Your task to perform on an android device: Find coffee shops on Maps Image 0: 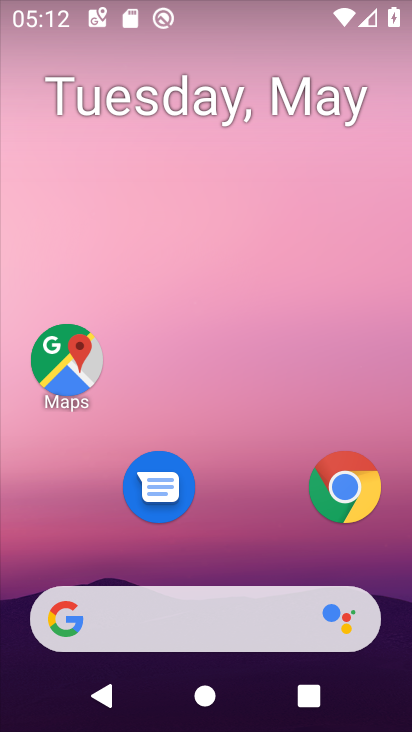
Step 0: click (77, 374)
Your task to perform on an android device: Find coffee shops on Maps Image 1: 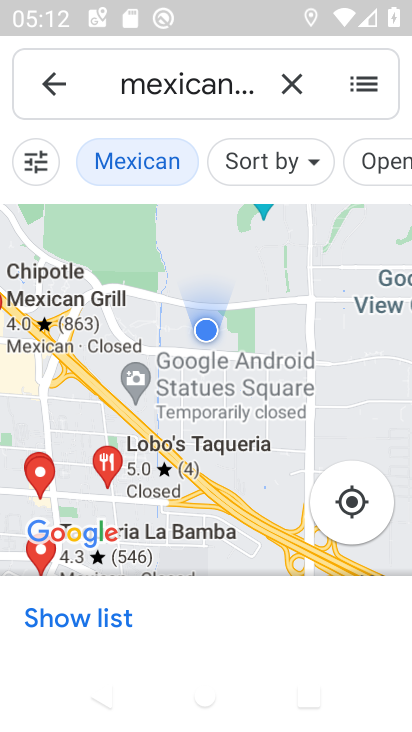
Step 1: click (275, 102)
Your task to perform on an android device: Find coffee shops on Maps Image 2: 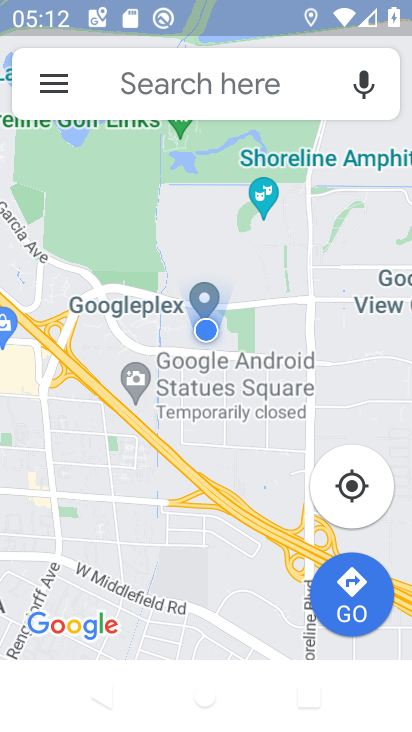
Step 2: click (264, 92)
Your task to perform on an android device: Find coffee shops on Maps Image 3: 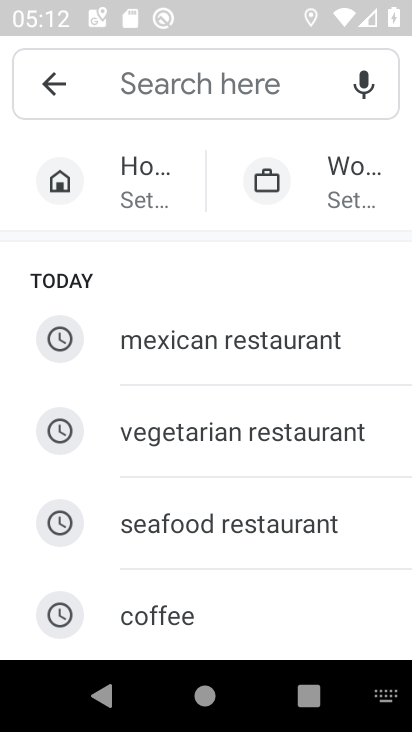
Step 3: click (209, 586)
Your task to perform on an android device: Find coffee shops on Maps Image 4: 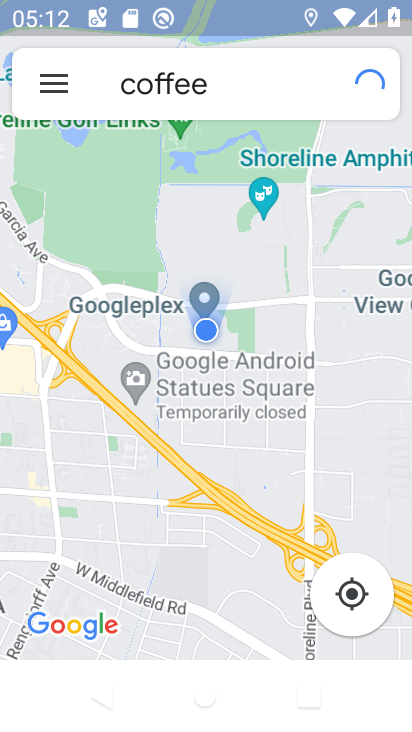
Step 4: task complete